Your task to perform on an android device: turn on location history Image 0: 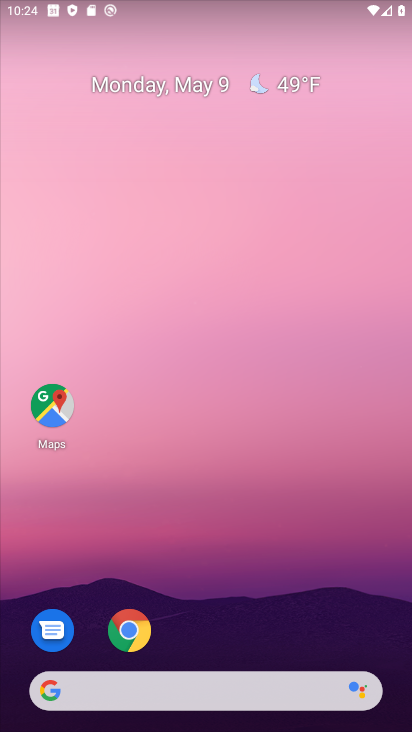
Step 0: drag from (206, 635) to (217, 193)
Your task to perform on an android device: turn on location history Image 1: 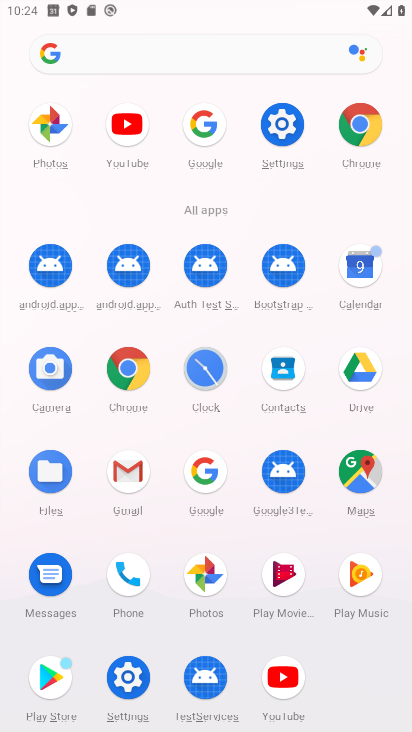
Step 1: click (295, 112)
Your task to perform on an android device: turn on location history Image 2: 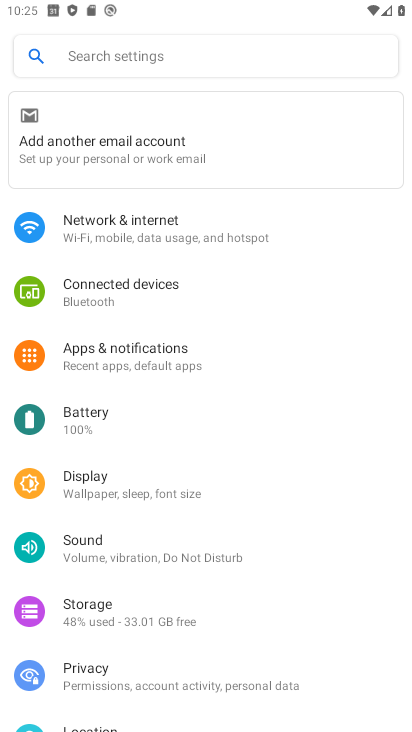
Step 2: drag from (215, 661) to (225, 452)
Your task to perform on an android device: turn on location history Image 3: 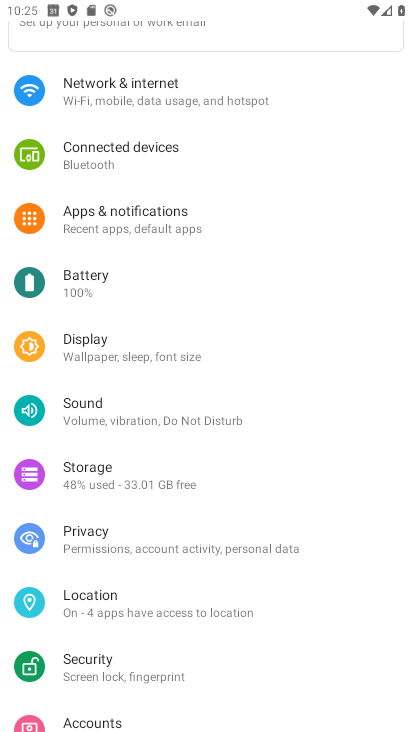
Step 3: click (157, 597)
Your task to perform on an android device: turn on location history Image 4: 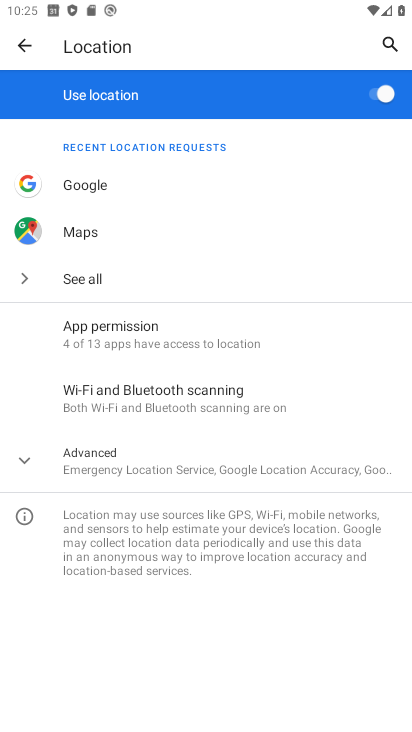
Step 4: click (175, 458)
Your task to perform on an android device: turn on location history Image 5: 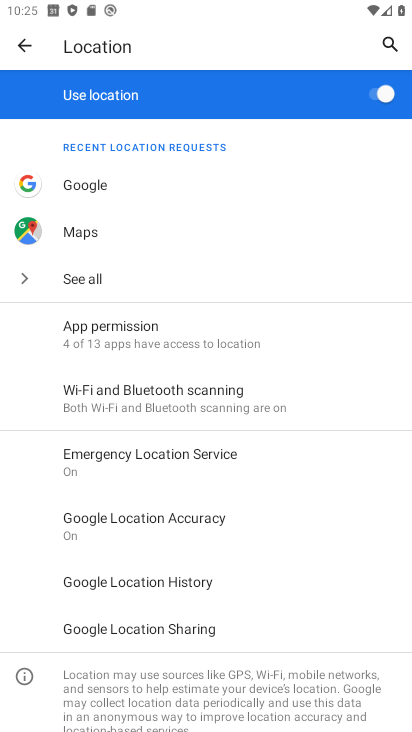
Step 5: click (224, 573)
Your task to perform on an android device: turn on location history Image 6: 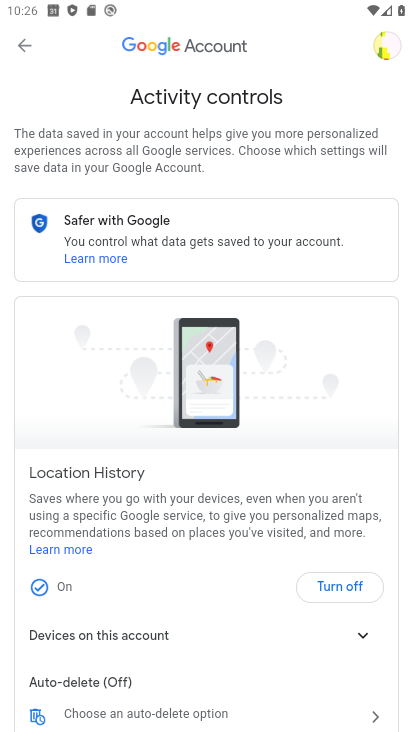
Step 6: task complete